Your task to perform on an android device: Go to Yahoo.com Image 0: 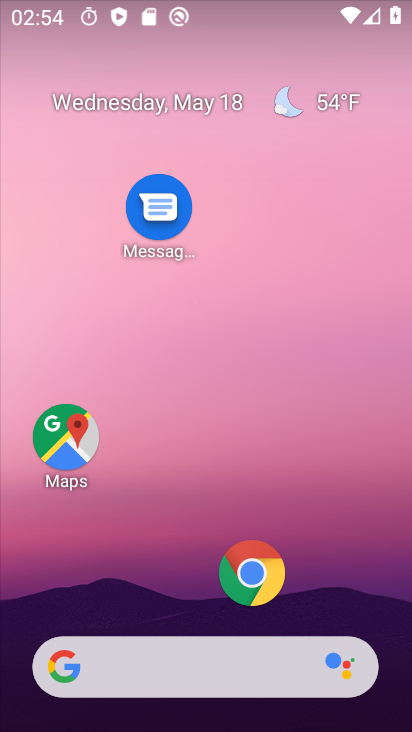
Step 0: click (236, 553)
Your task to perform on an android device: Go to Yahoo.com Image 1: 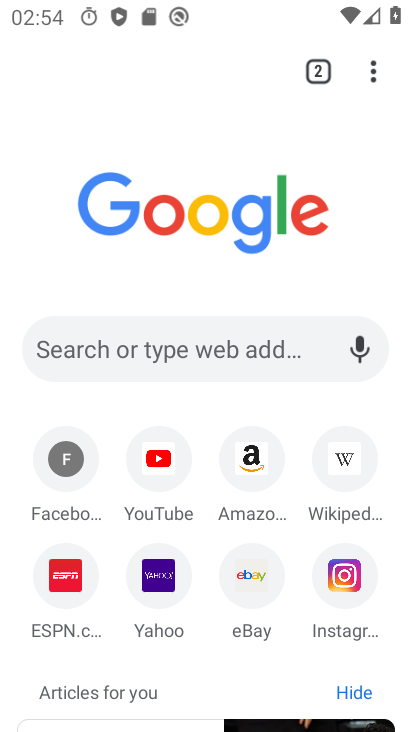
Step 1: click (167, 585)
Your task to perform on an android device: Go to Yahoo.com Image 2: 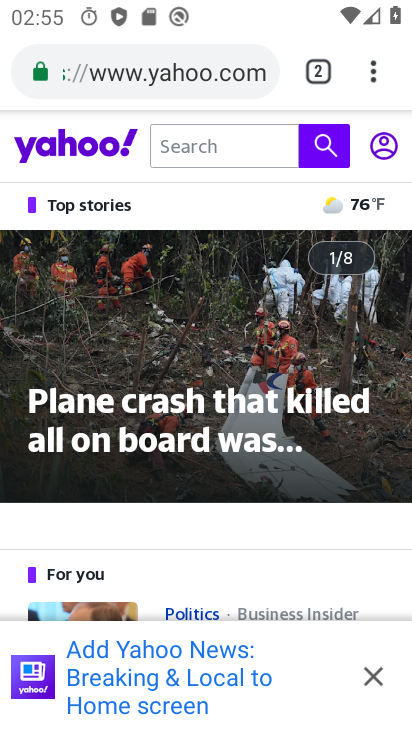
Step 2: task complete